Your task to perform on an android device: refresh tabs in the chrome app Image 0: 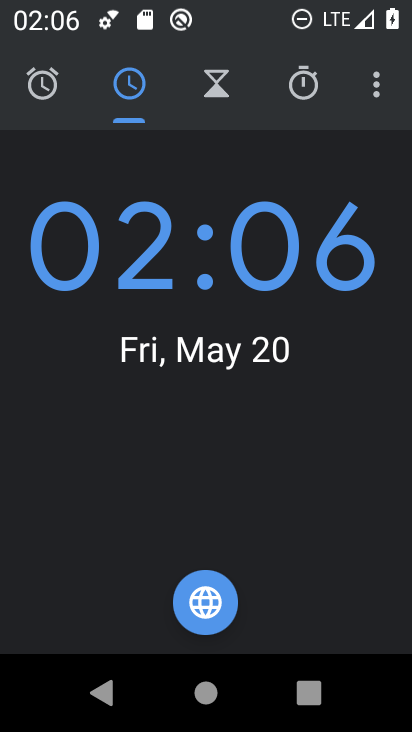
Step 0: press home button
Your task to perform on an android device: refresh tabs in the chrome app Image 1: 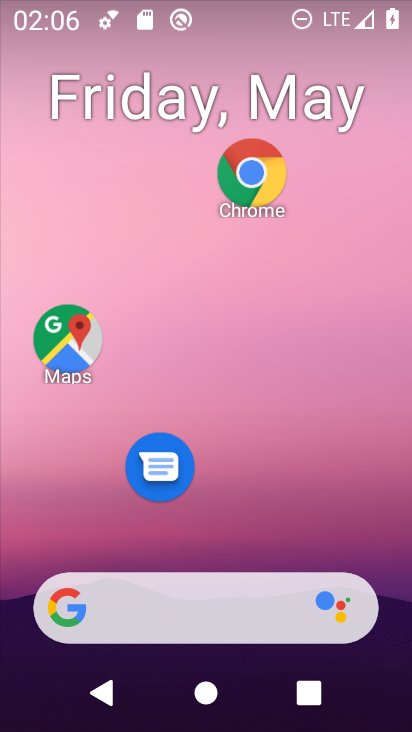
Step 1: drag from (280, 657) to (254, 129)
Your task to perform on an android device: refresh tabs in the chrome app Image 2: 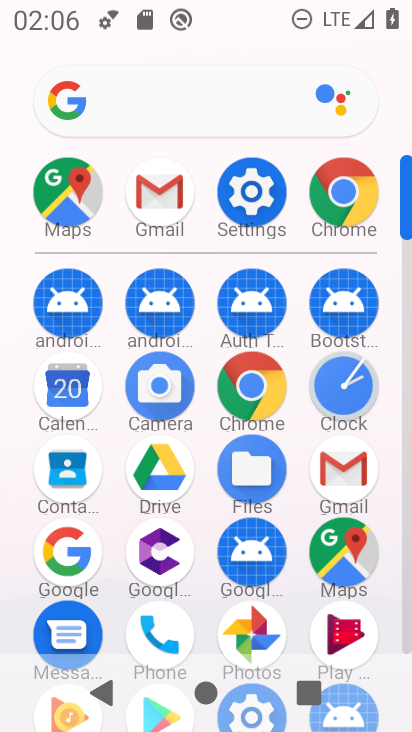
Step 2: click (316, 203)
Your task to perform on an android device: refresh tabs in the chrome app Image 3: 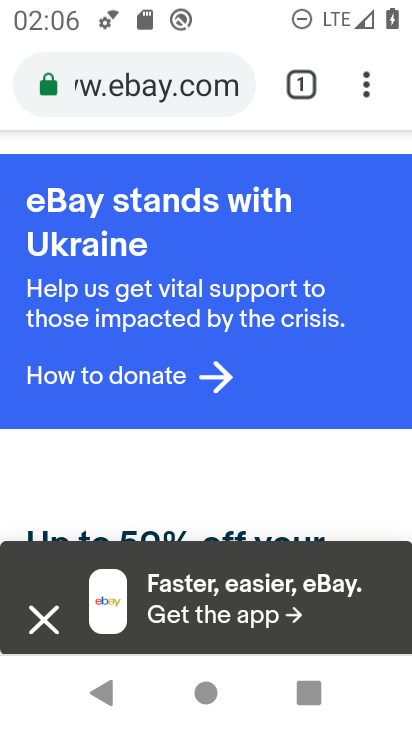
Step 3: click (366, 97)
Your task to perform on an android device: refresh tabs in the chrome app Image 4: 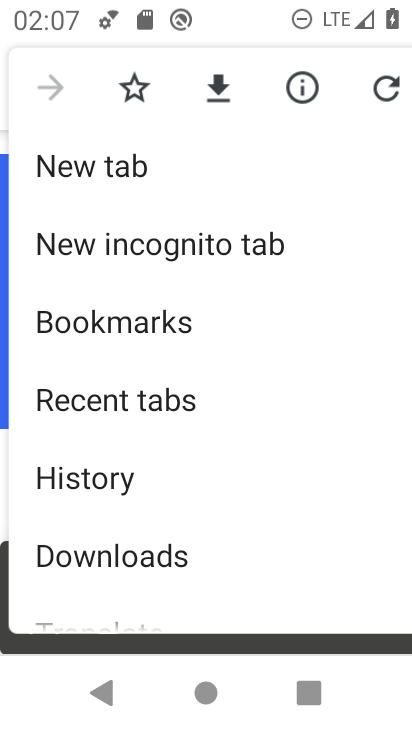
Step 4: drag from (208, 558) to (192, 239)
Your task to perform on an android device: refresh tabs in the chrome app Image 5: 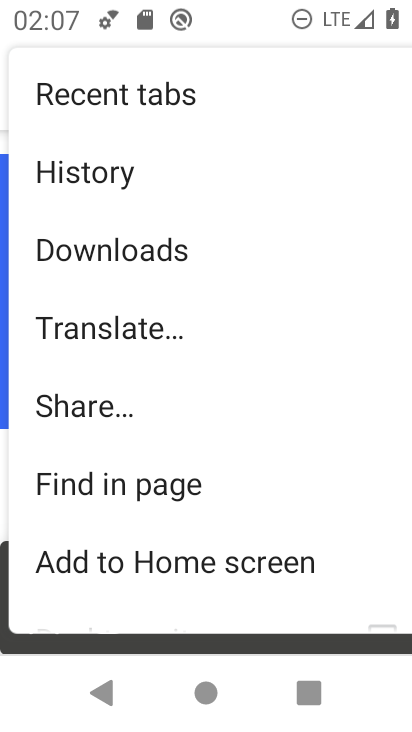
Step 5: drag from (287, 179) to (410, 581)
Your task to perform on an android device: refresh tabs in the chrome app Image 6: 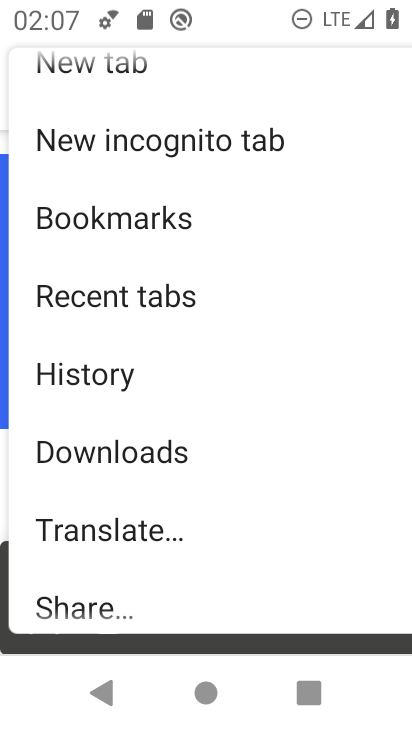
Step 6: click (387, 94)
Your task to perform on an android device: refresh tabs in the chrome app Image 7: 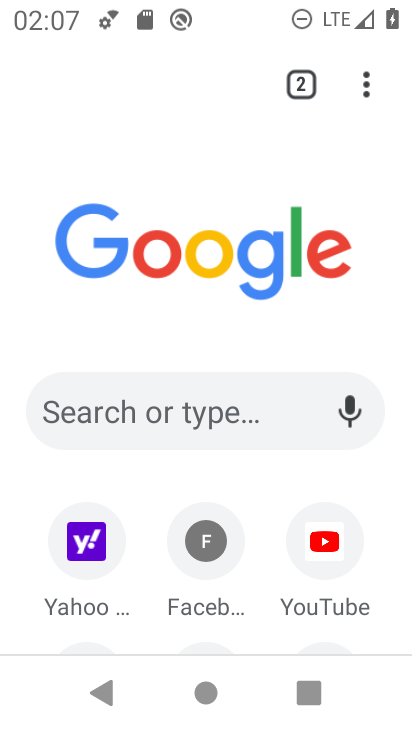
Step 7: task complete